Your task to perform on an android device: toggle improve location accuracy Image 0: 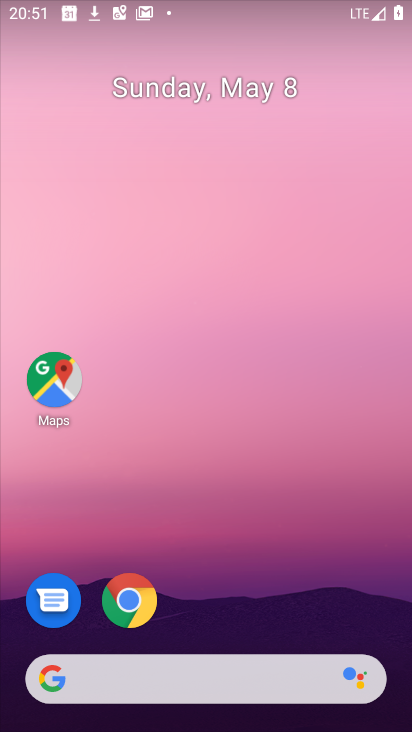
Step 0: drag from (309, 710) to (237, 301)
Your task to perform on an android device: toggle improve location accuracy Image 1: 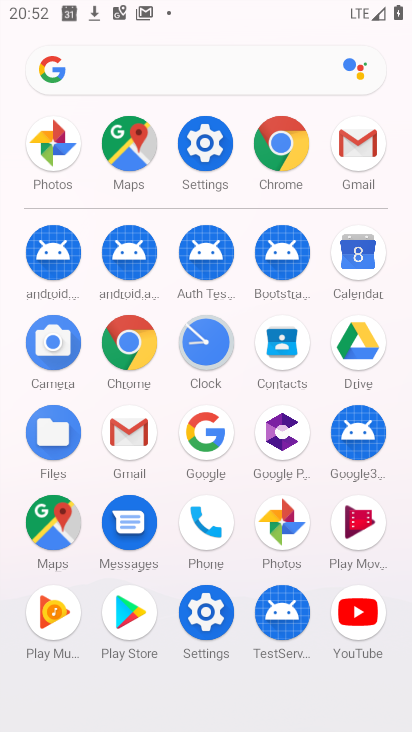
Step 1: click (196, 154)
Your task to perform on an android device: toggle improve location accuracy Image 2: 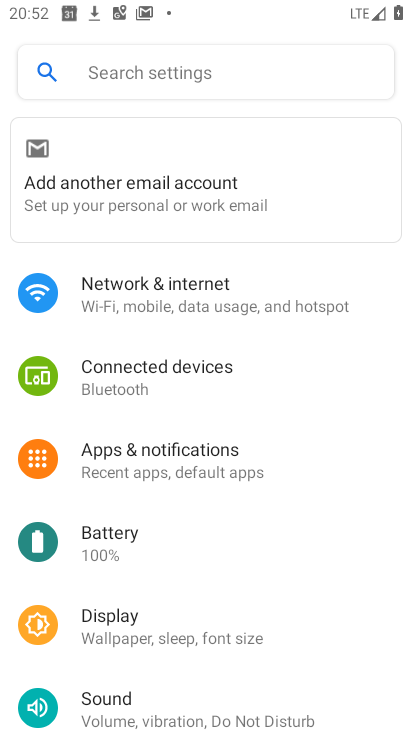
Step 2: click (111, 66)
Your task to perform on an android device: toggle improve location accuracy Image 3: 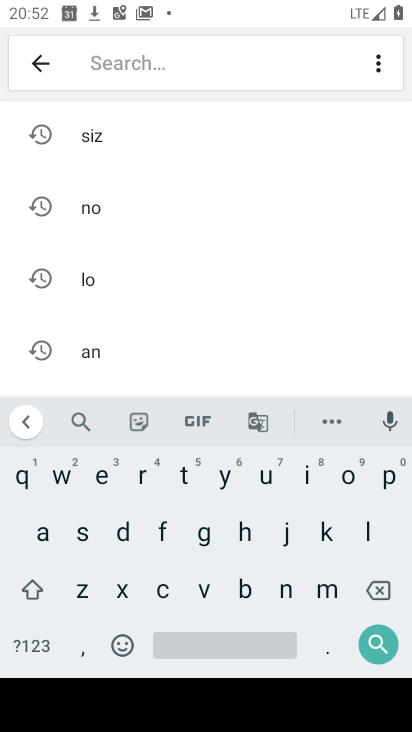
Step 3: click (112, 285)
Your task to perform on an android device: toggle improve location accuracy Image 4: 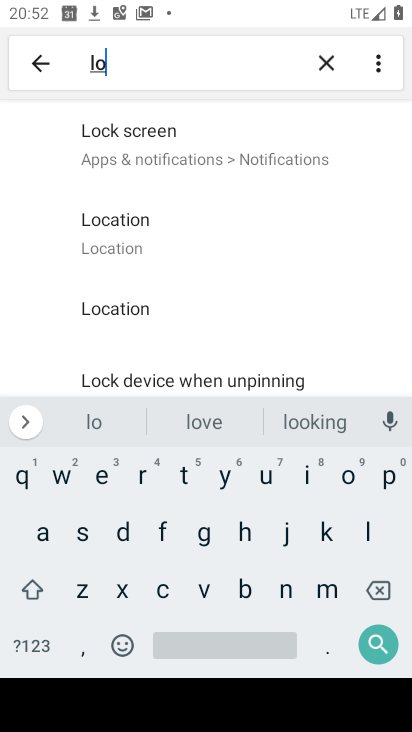
Step 4: click (118, 242)
Your task to perform on an android device: toggle improve location accuracy Image 5: 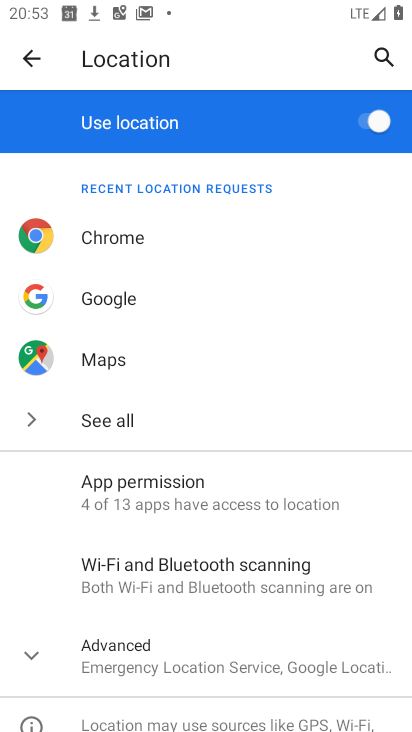
Step 5: click (84, 644)
Your task to perform on an android device: toggle improve location accuracy Image 6: 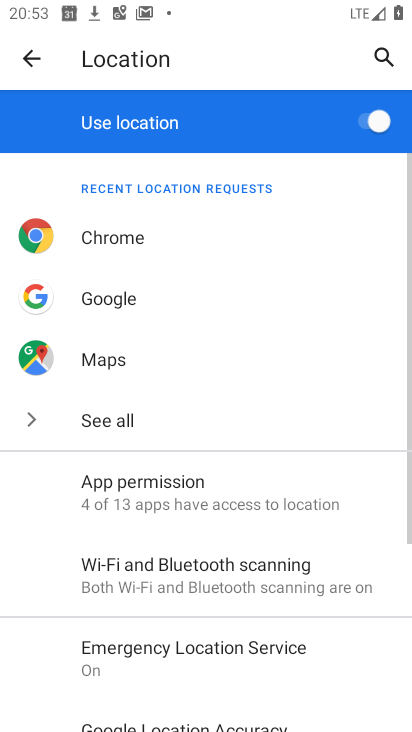
Step 6: drag from (165, 576) to (263, 381)
Your task to perform on an android device: toggle improve location accuracy Image 7: 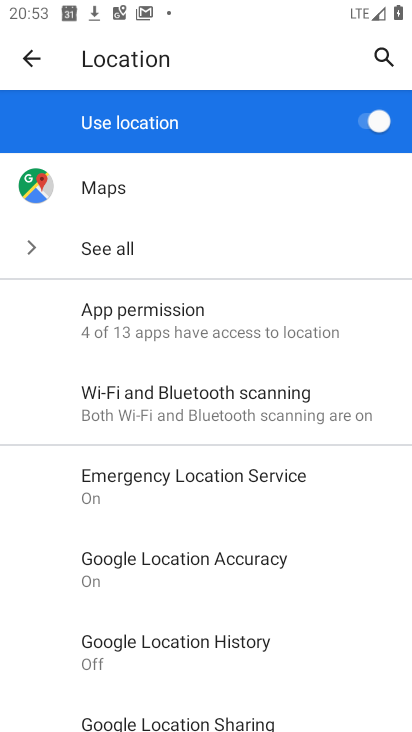
Step 7: click (175, 558)
Your task to perform on an android device: toggle improve location accuracy Image 8: 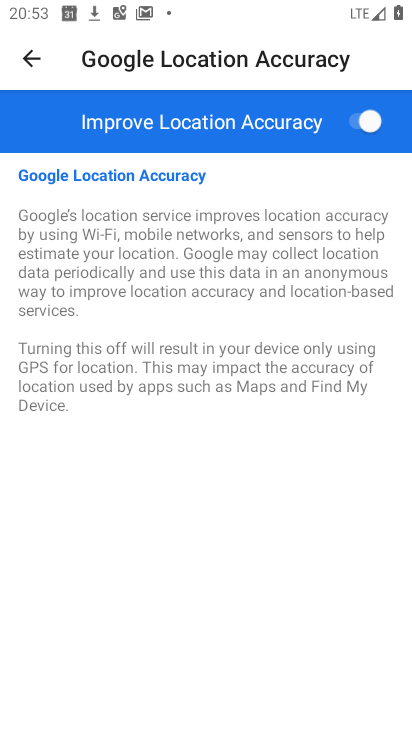
Step 8: task complete